Your task to perform on an android device: check the backup settings in the google photos Image 0: 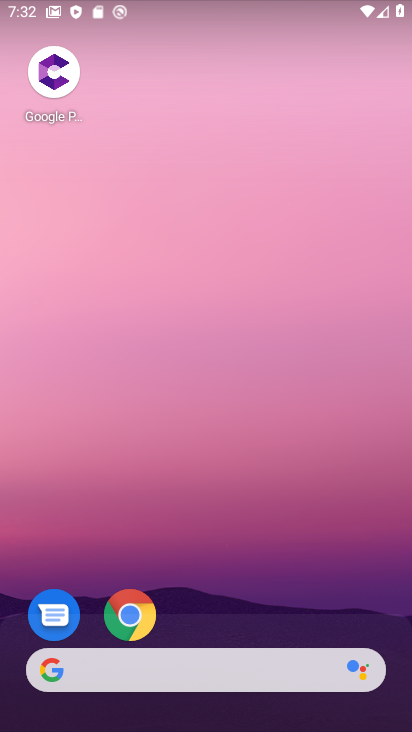
Step 0: drag from (231, 604) to (172, 94)
Your task to perform on an android device: check the backup settings in the google photos Image 1: 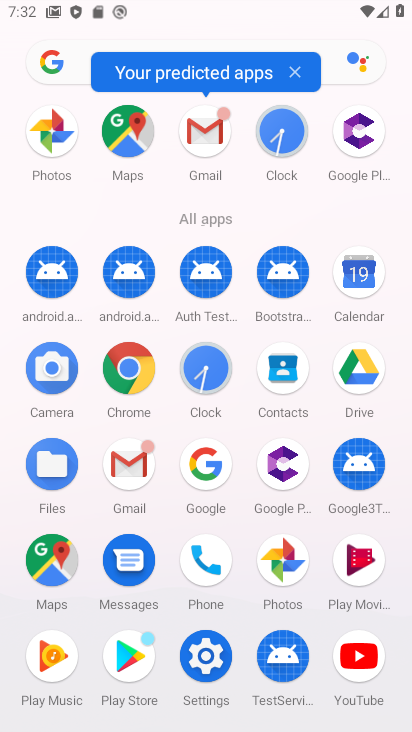
Step 1: click (55, 146)
Your task to perform on an android device: check the backup settings in the google photos Image 2: 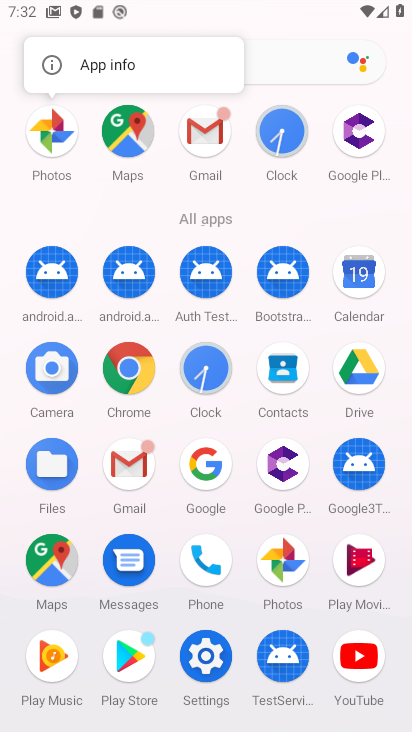
Step 2: click (55, 146)
Your task to perform on an android device: check the backup settings in the google photos Image 3: 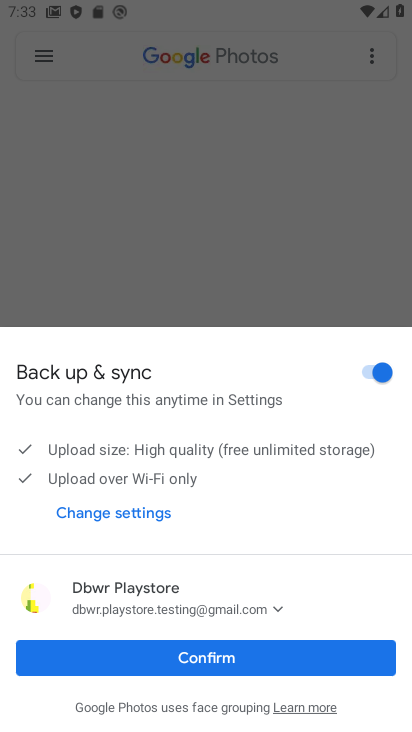
Step 3: click (144, 507)
Your task to perform on an android device: check the backup settings in the google photos Image 4: 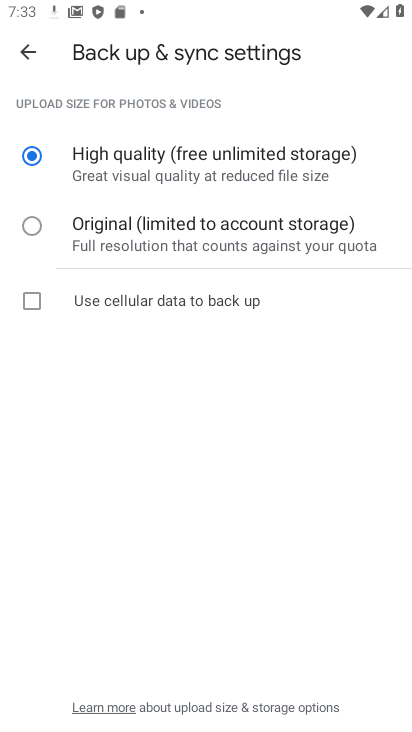
Step 4: task complete